Your task to perform on an android device: open chrome privacy settings Image 0: 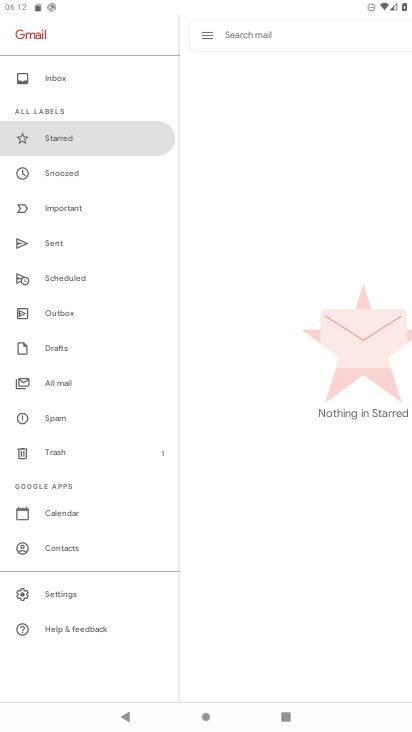
Step 0: press home button
Your task to perform on an android device: open chrome privacy settings Image 1: 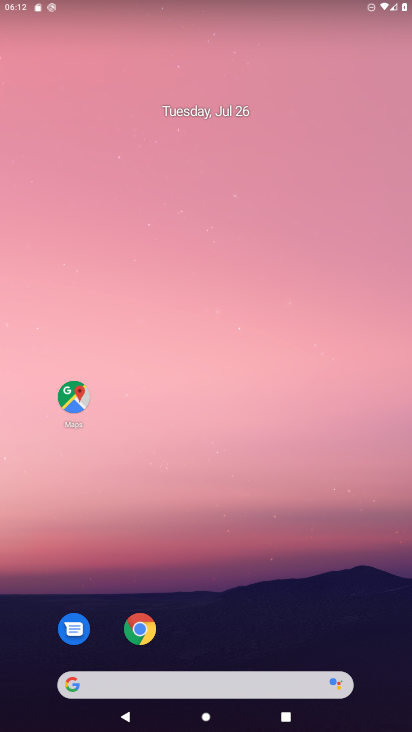
Step 1: click (136, 630)
Your task to perform on an android device: open chrome privacy settings Image 2: 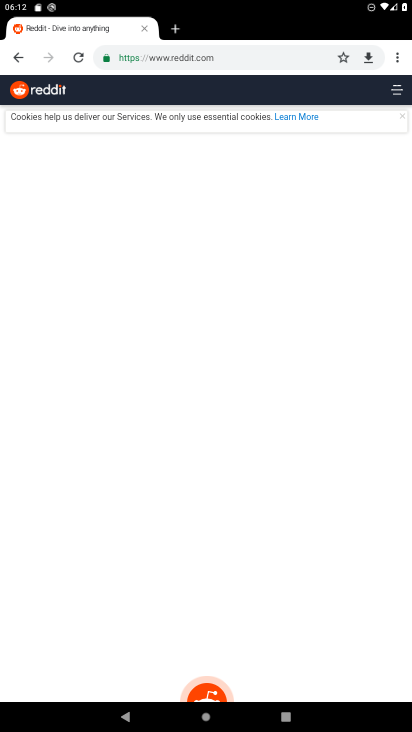
Step 2: click (398, 57)
Your task to perform on an android device: open chrome privacy settings Image 3: 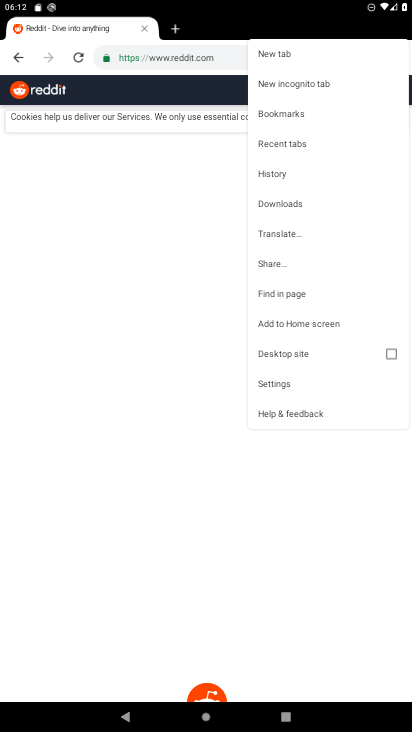
Step 3: click (288, 383)
Your task to perform on an android device: open chrome privacy settings Image 4: 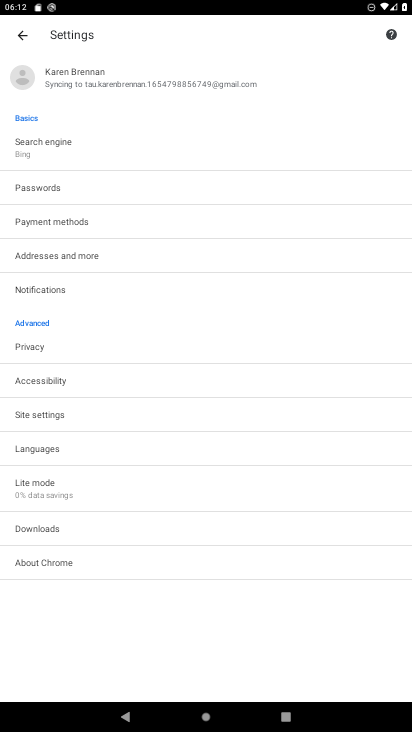
Step 4: click (22, 348)
Your task to perform on an android device: open chrome privacy settings Image 5: 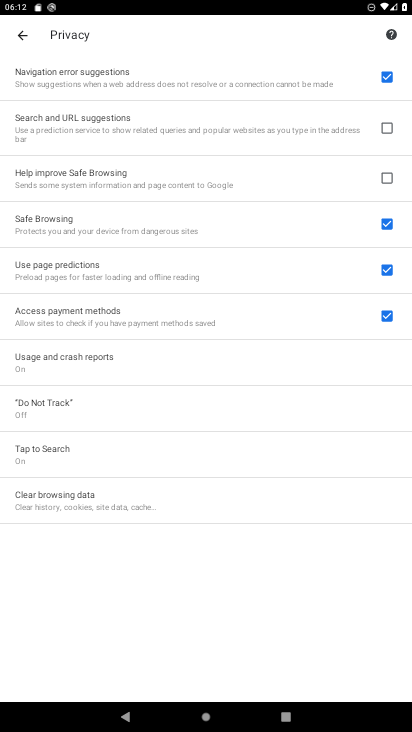
Step 5: task complete